Your task to perform on an android device: open app "Duolingo: language lessons" (install if not already installed) Image 0: 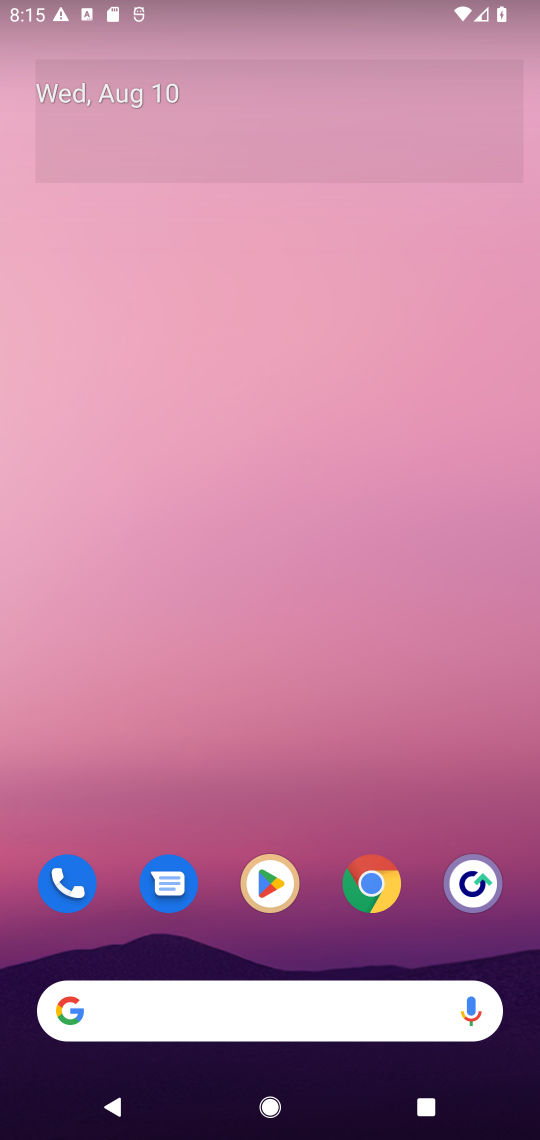
Step 0: drag from (294, 966) to (292, 112)
Your task to perform on an android device: open app "Duolingo: language lessons" (install if not already installed) Image 1: 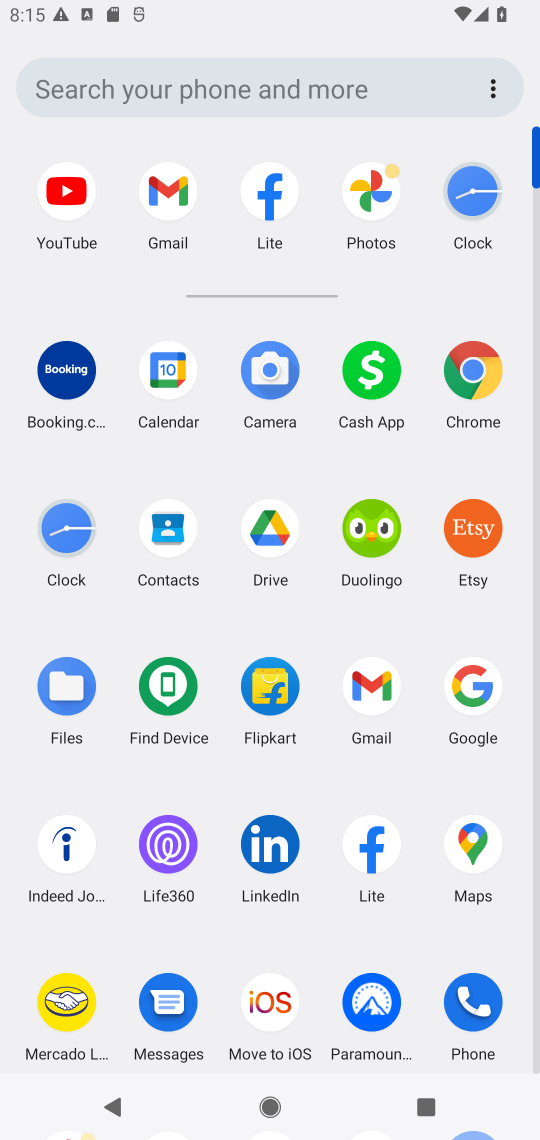
Step 1: drag from (239, 968) to (239, 433)
Your task to perform on an android device: open app "Duolingo: language lessons" (install if not already installed) Image 2: 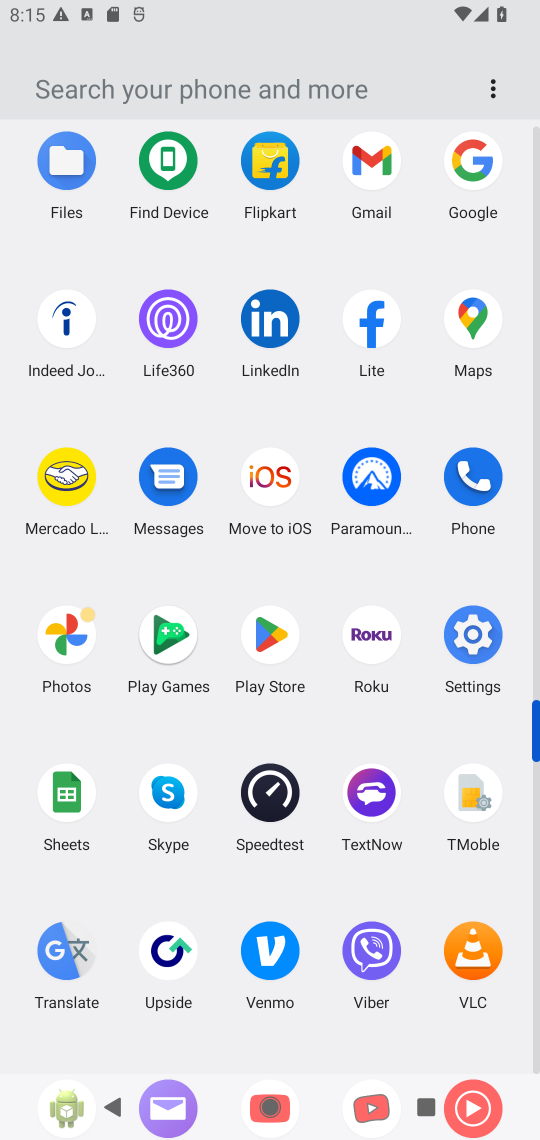
Step 2: click (271, 635)
Your task to perform on an android device: open app "Duolingo: language lessons" (install if not already installed) Image 3: 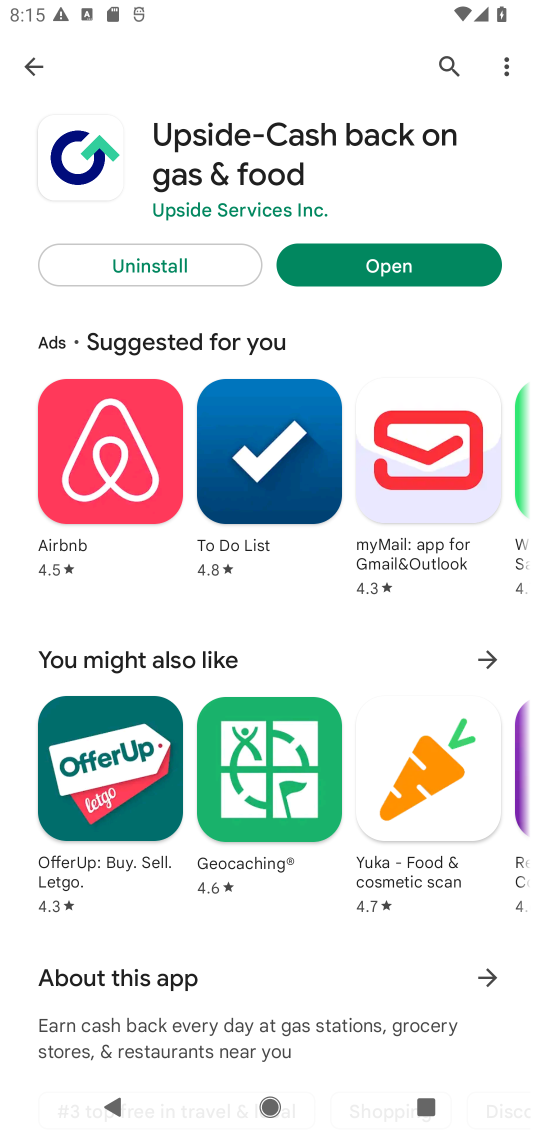
Step 3: click (442, 56)
Your task to perform on an android device: open app "Duolingo: language lessons" (install if not already installed) Image 4: 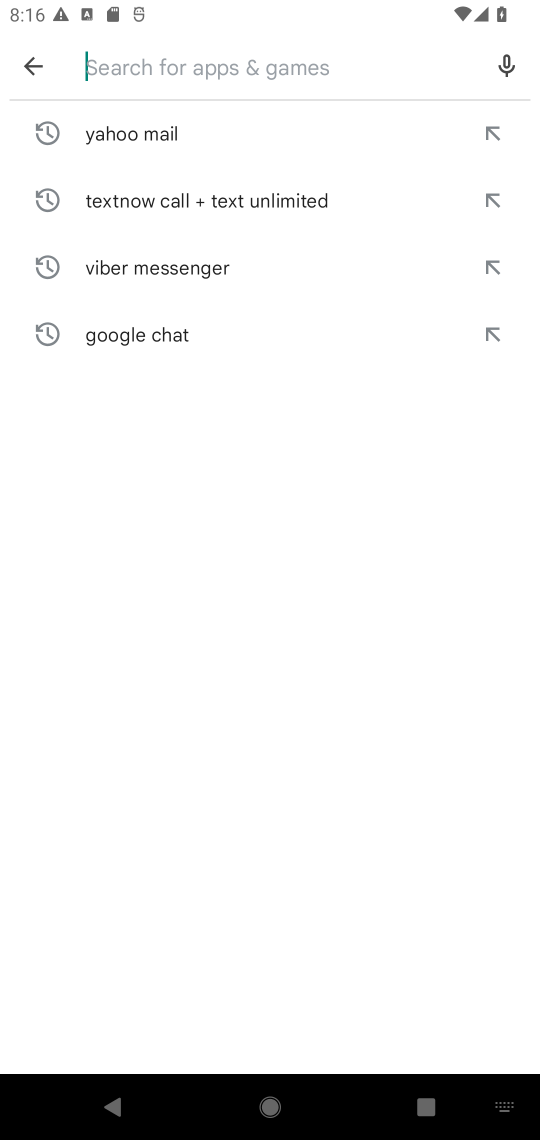
Step 4: type "Duolingo: language lessons"
Your task to perform on an android device: open app "Duolingo: language lessons" (install if not already installed) Image 5: 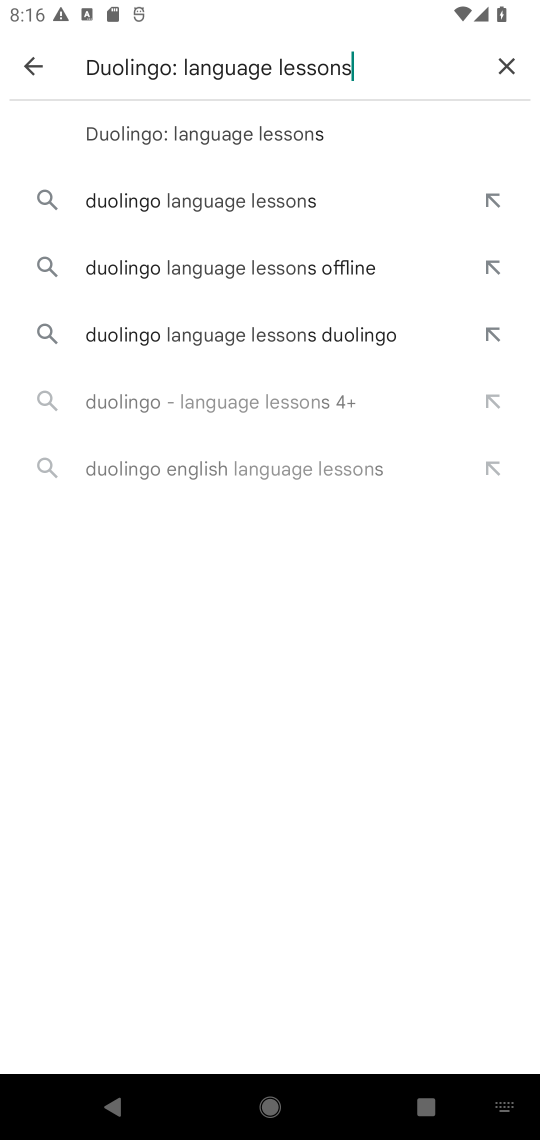
Step 5: type ""
Your task to perform on an android device: open app "Duolingo: language lessons" (install if not already installed) Image 6: 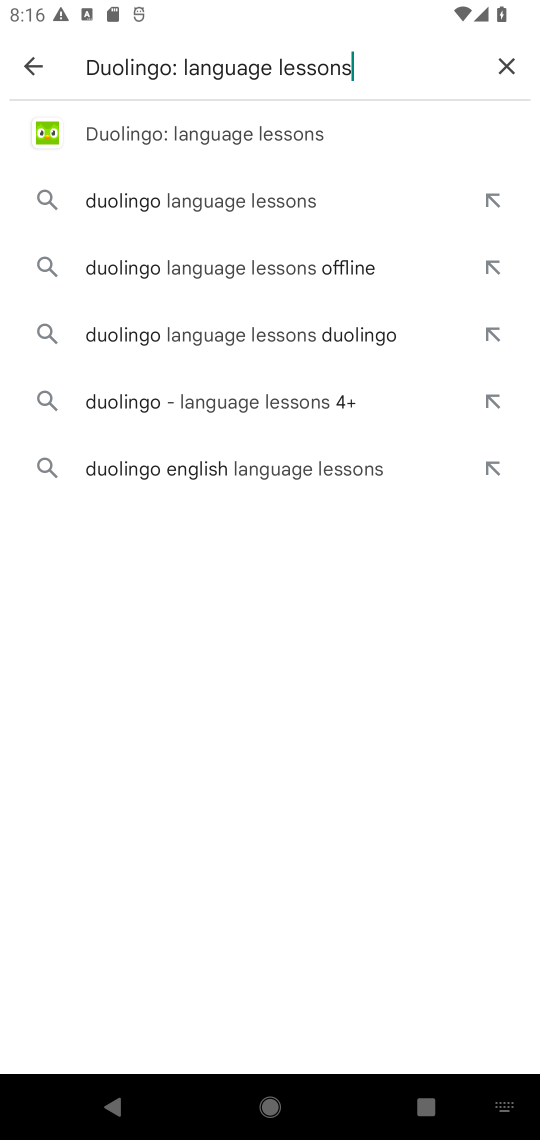
Step 6: click (257, 137)
Your task to perform on an android device: open app "Duolingo: language lessons" (install if not already installed) Image 7: 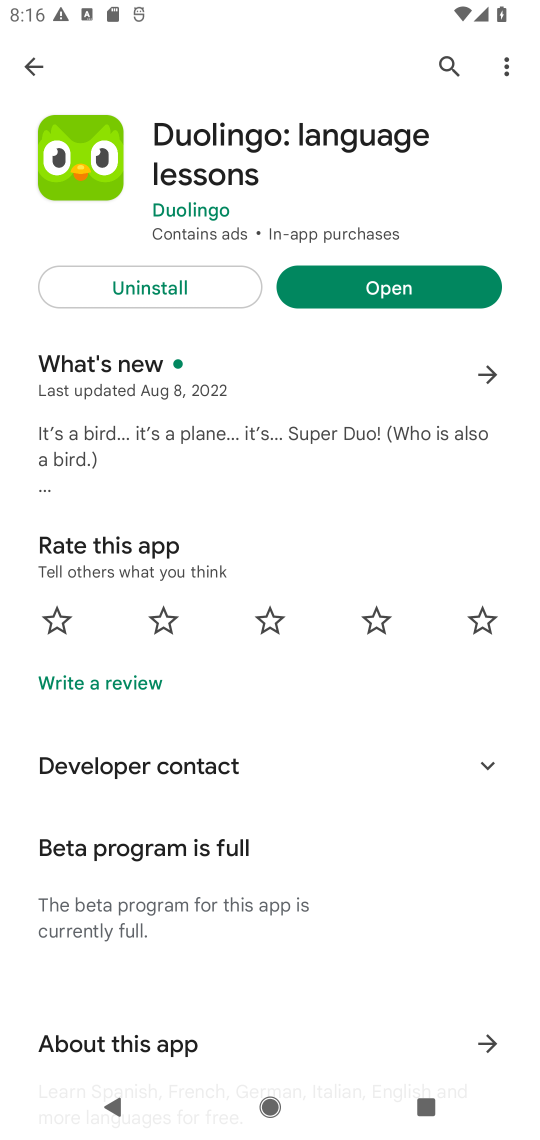
Step 7: click (395, 292)
Your task to perform on an android device: open app "Duolingo: language lessons" (install if not already installed) Image 8: 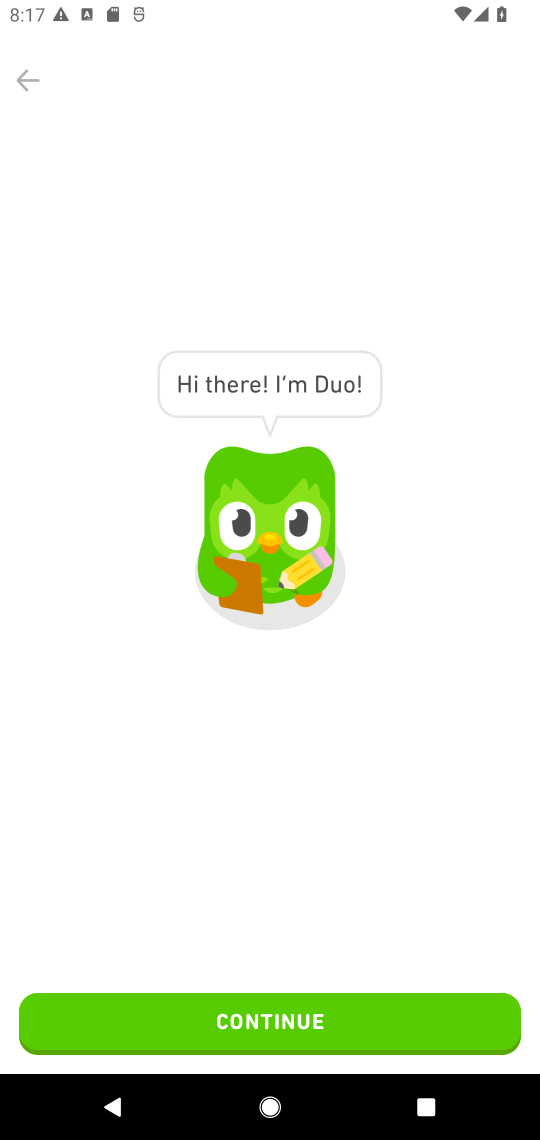
Step 8: task complete